Your task to perform on an android device: add a label to a message in the gmail app Image 0: 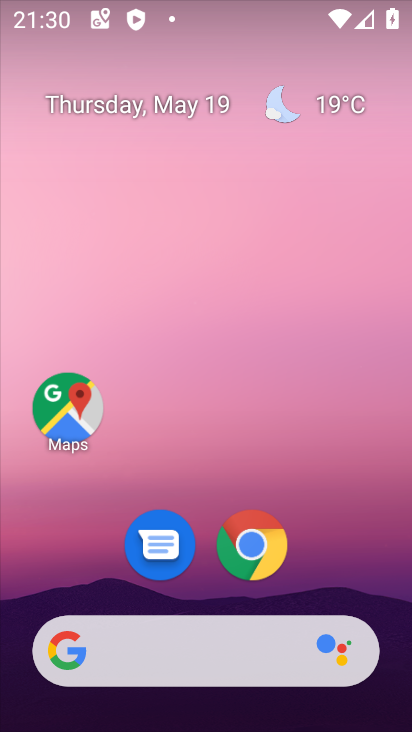
Step 0: drag from (350, 591) to (357, 191)
Your task to perform on an android device: add a label to a message in the gmail app Image 1: 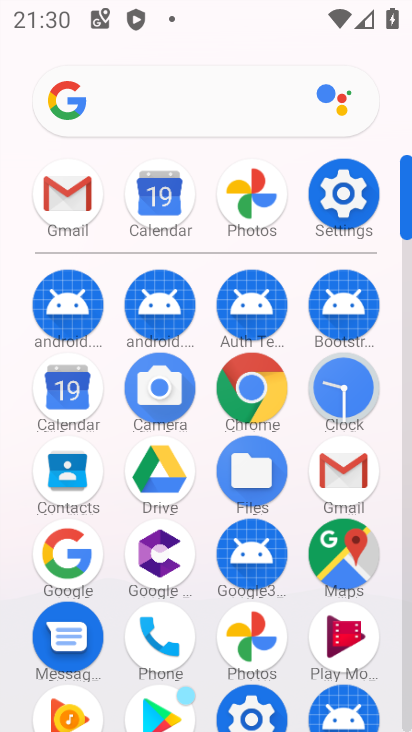
Step 1: click (72, 225)
Your task to perform on an android device: add a label to a message in the gmail app Image 2: 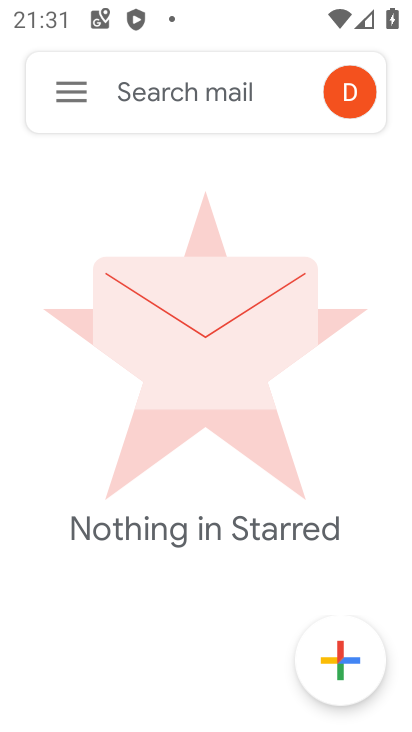
Step 2: click (45, 86)
Your task to perform on an android device: add a label to a message in the gmail app Image 3: 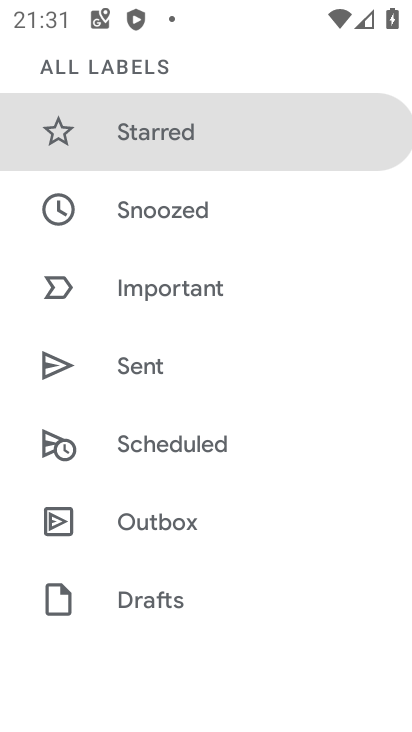
Step 3: drag from (201, 472) to (221, 149)
Your task to perform on an android device: add a label to a message in the gmail app Image 4: 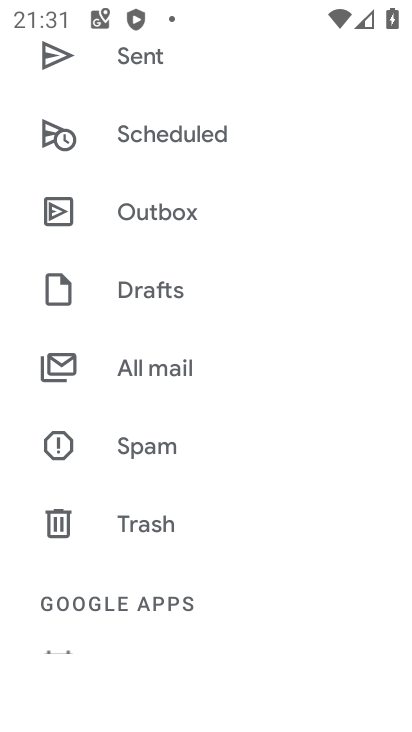
Step 4: drag from (173, 585) to (178, 197)
Your task to perform on an android device: add a label to a message in the gmail app Image 5: 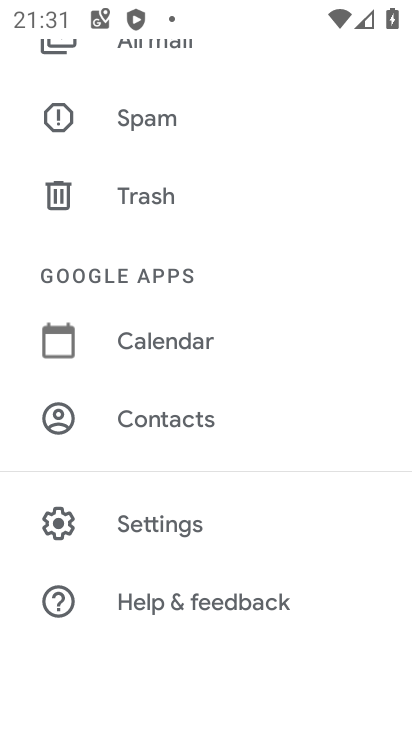
Step 5: click (235, 65)
Your task to perform on an android device: add a label to a message in the gmail app Image 6: 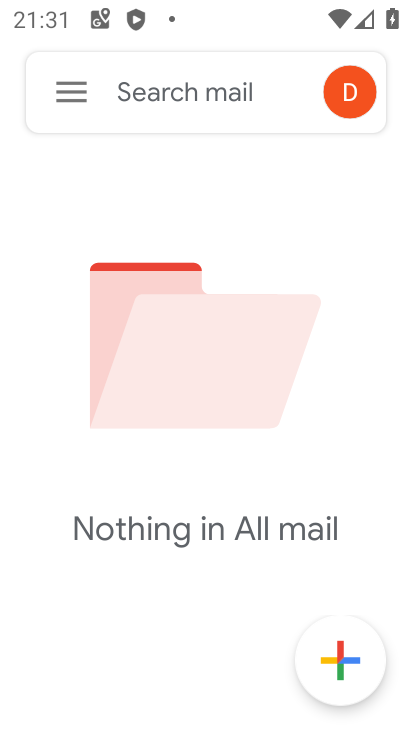
Step 6: click (69, 86)
Your task to perform on an android device: add a label to a message in the gmail app Image 7: 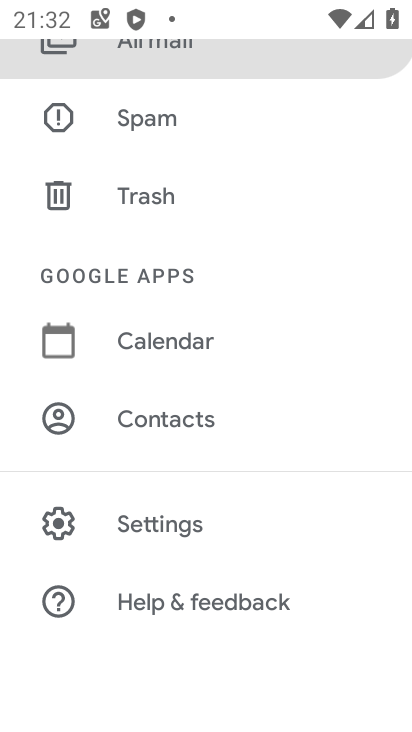
Step 7: task complete